Your task to perform on an android device: clear all cookies in the chrome app Image 0: 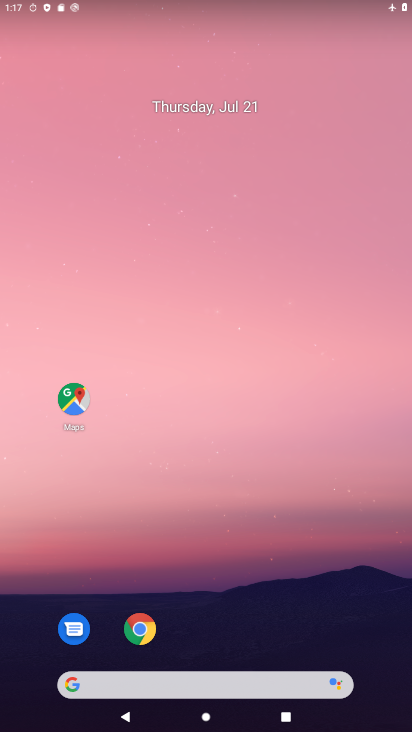
Step 0: click (138, 617)
Your task to perform on an android device: clear all cookies in the chrome app Image 1: 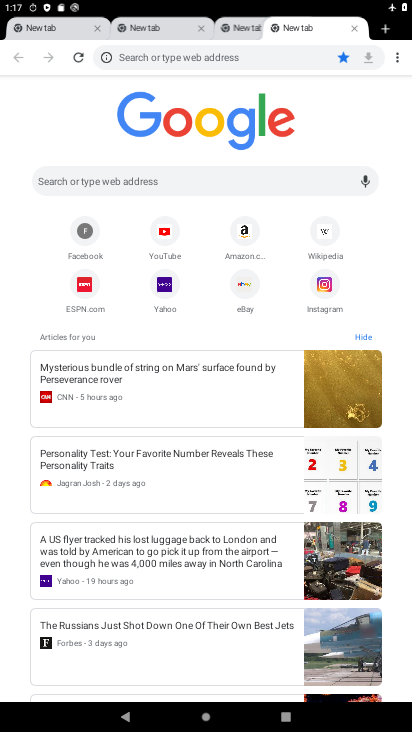
Step 1: click (401, 58)
Your task to perform on an android device: clear all cookies in the chrome app Image 2: 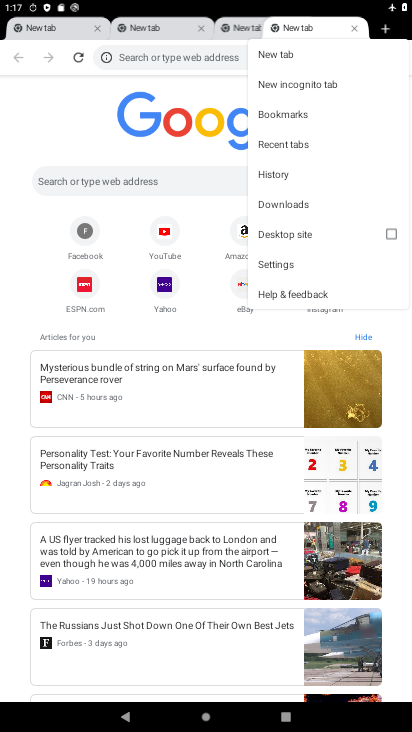
Step 2: click (283, 111)
Your task to perform on an android device: clear all cookies in the chrome app Image 3: 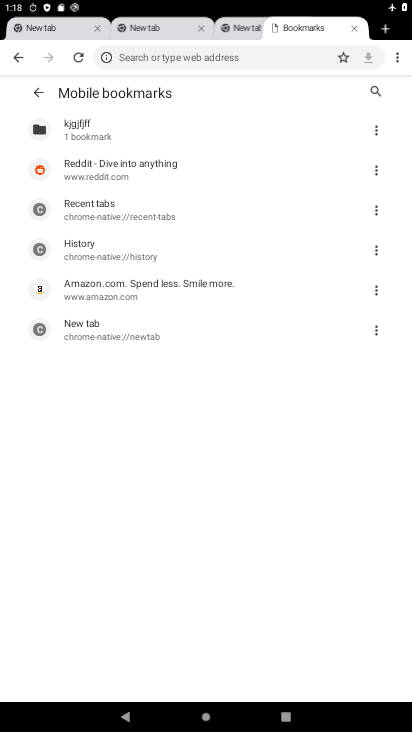
Step 3: click (398, 54)
Your task to perform on an android device: clear all cookies in the chrome app Image 4: 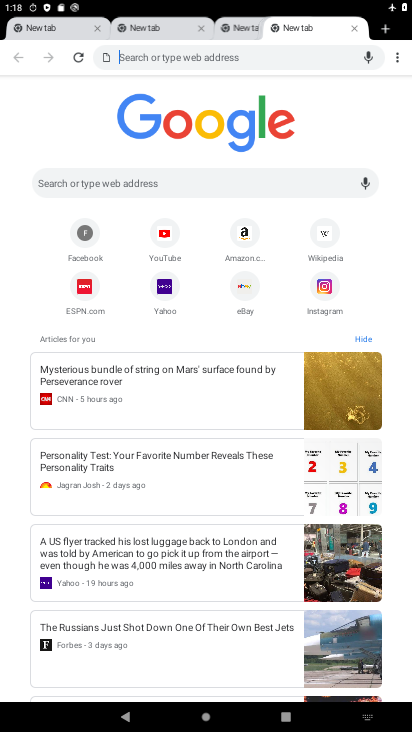
Step 4: click (397, 55)
Your task to perform on an android device: clear all cookies in the chrome app Image 5: 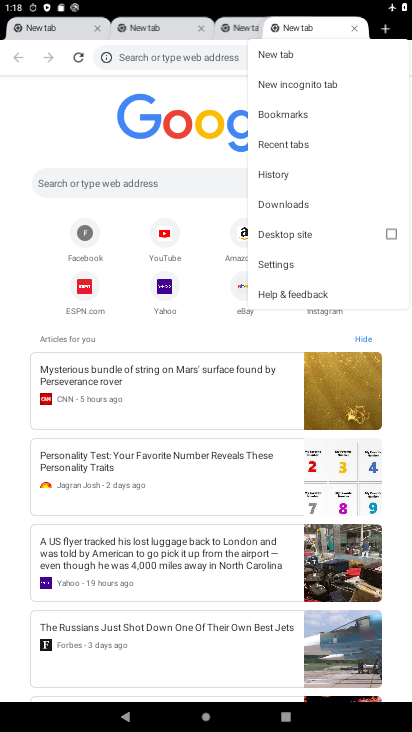
Step 5: click (264, 171)
Your task to perform on an android device: clear all cookies in the chrome app Image 6: 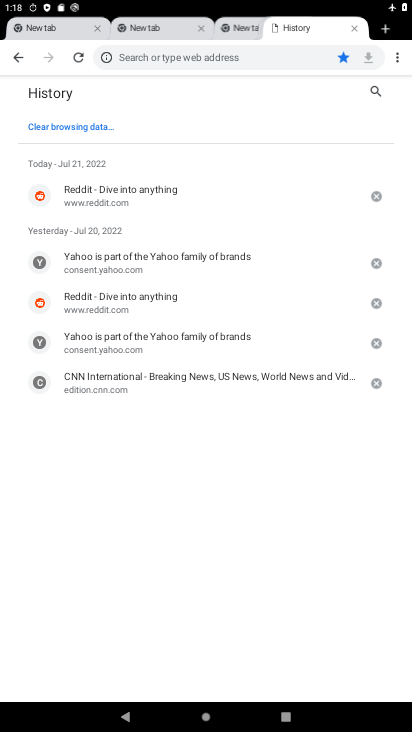
Step 6: click (76, 121)
Your task to perform on an android device: clear all cookies in the chrome app Image 7: 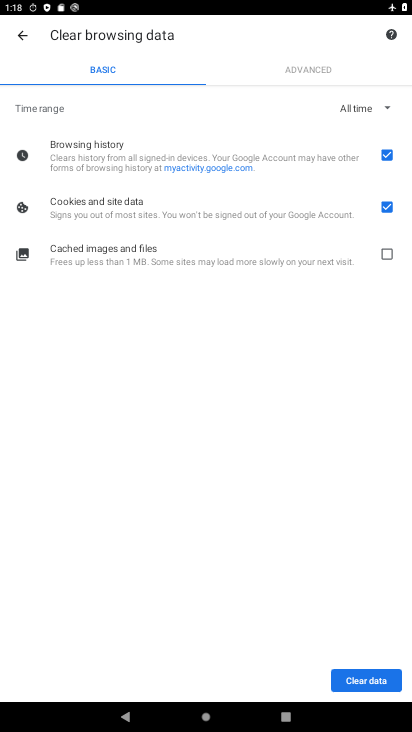
Step 7: click (385, 149)
Your task to perform on an android device: clear all cookies in the chrome app Image 8: 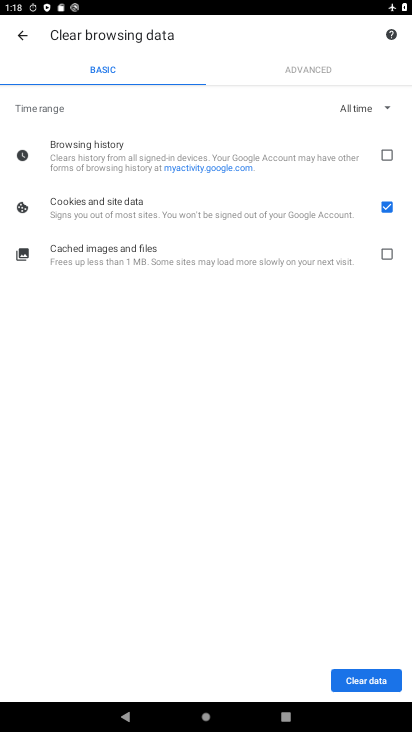
Step 8: click (360, 677)
Your task to perform on an android device: clear all cookies in the chrome app Image 9: 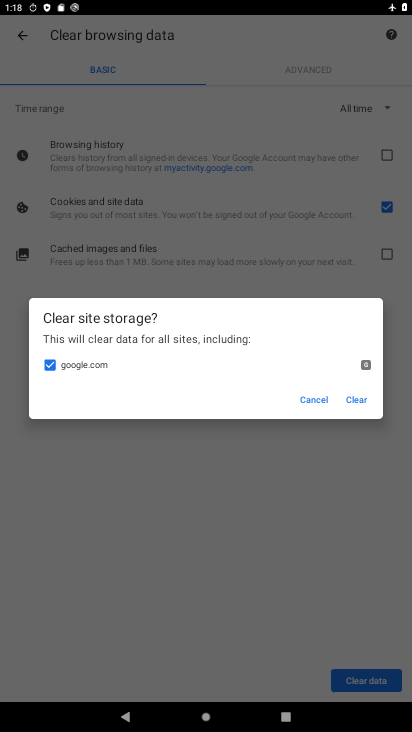
Step 9: click (358, 399)
Your task to perform on an android device: clear all cookies in the chrome app Image 10: 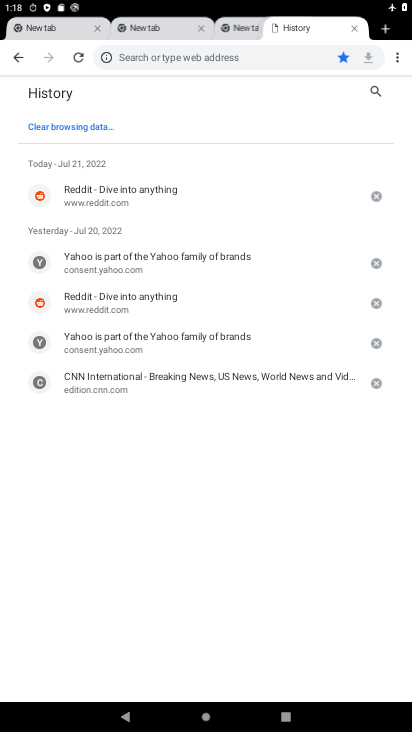
Step 10: task complete